Your task to perform on an android device: Search for Mexican restaurants on Maps Image 0: 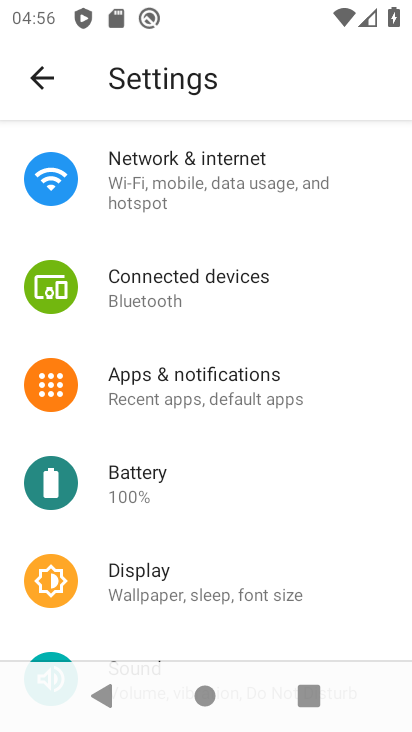
Step 0: press home button
Your task to perform on an android device: Search for Mexican restaurants on Maps Image 1: 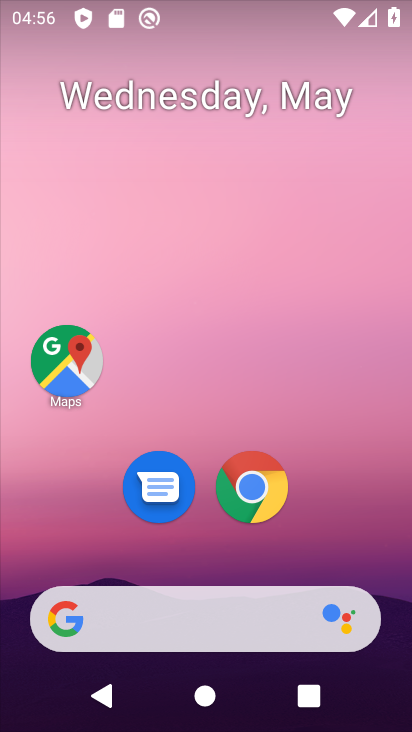
Step 1: click (95, 369)
Your task to perform on an android device: Search for Mexican restaurants on Maps Image 2: 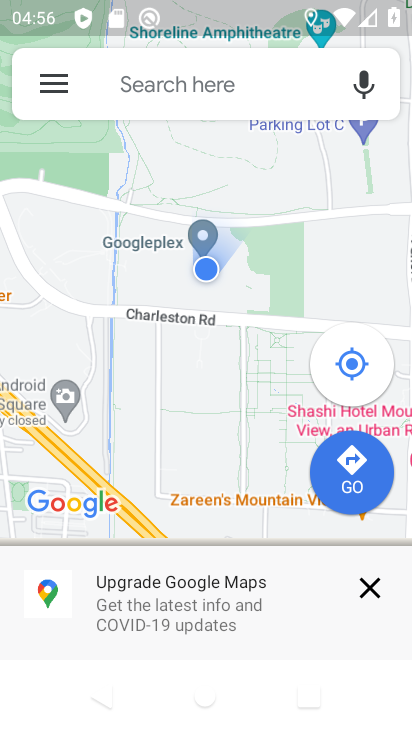
Step 2: click (212, 97)
Your task to perform on an android device: Search for Mexican restaurants on Maps Image 3: 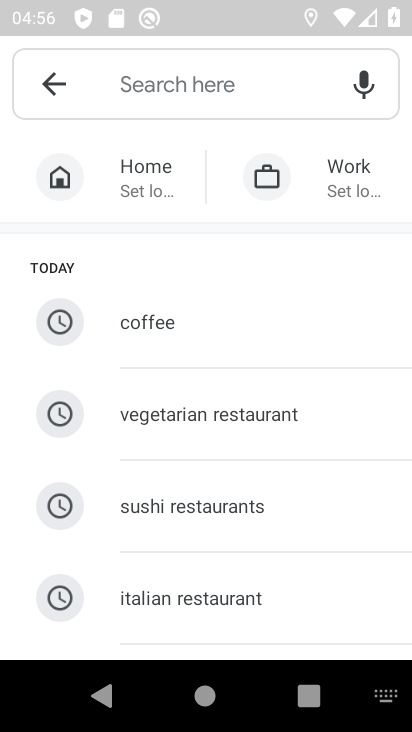
Step 3: type "mexican"
Your task to perform on an android device: Search for Mexican restaurants on Maps Image 4: 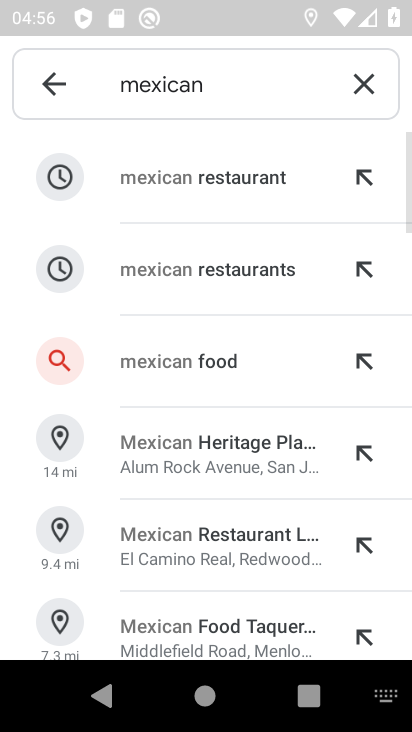
Step 4: click (202, 176)
Your task to perform on an android device: Search for Mexican restaurants on Maps Image 5: 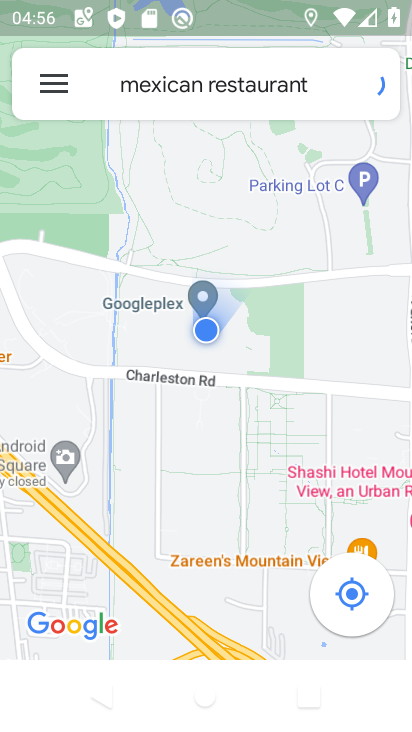
Step 5: task complete